Your task to perform on an android device: clear history in the chrome app Image 0: 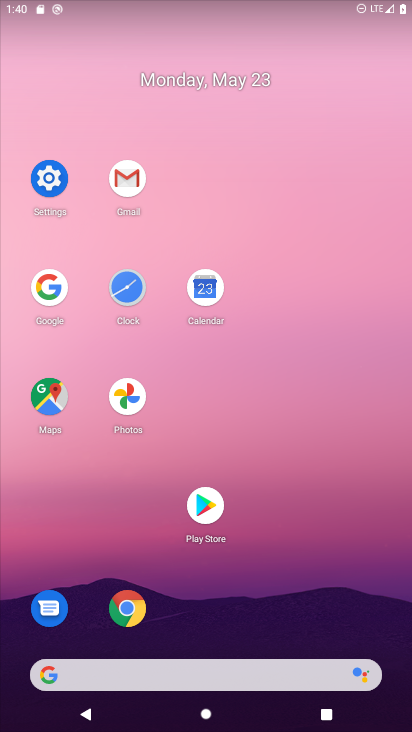
Step 0: click (129, 609)
Your task to perform on an android device: clear history in the chrome app Image 1: 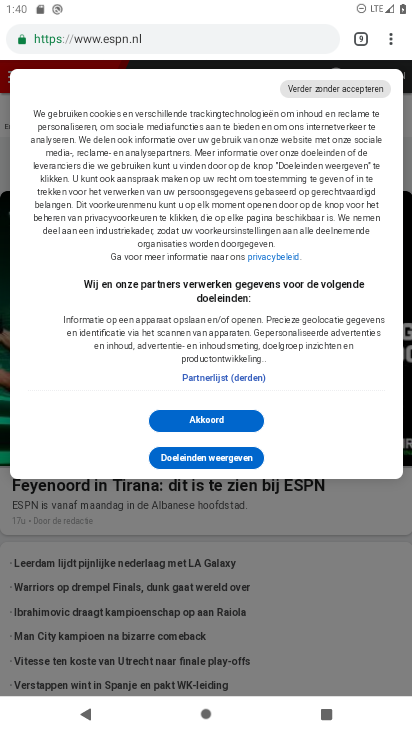
Step 1: click (394, 43)
Your task to perform on an android device: clear history in the chrome app Image 2: 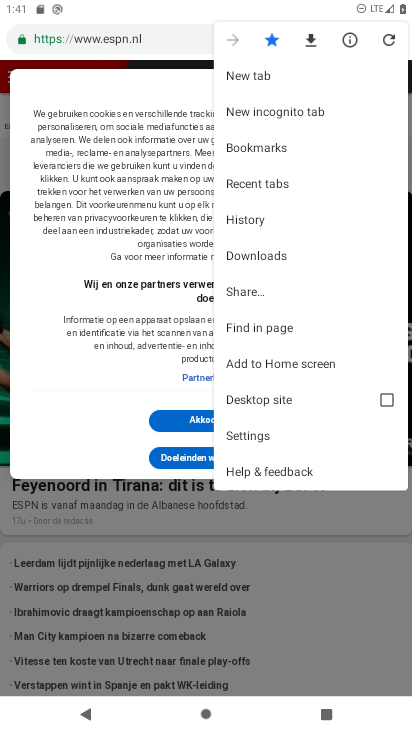
Step 2: click (259, 220)
Your task to perform on an android device: clear history in the chrome app Image 3: 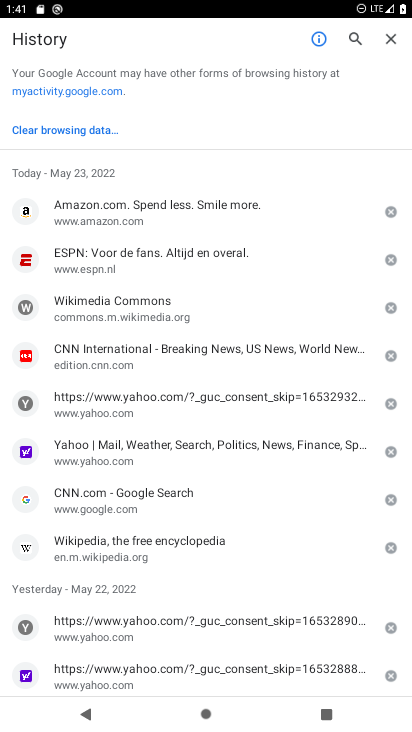
Step 3: click (46, 131)
Your task to perform on an android device: clear history in the chrome app Image 4: 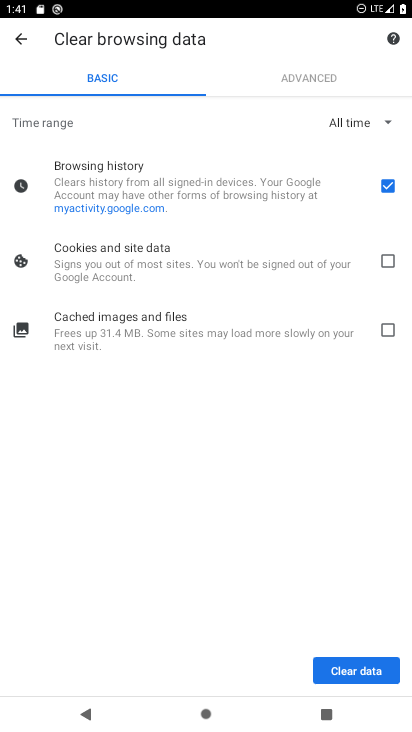
Step 4: click (362, 670)
Your task to perform on an android device: clear history in the chrome app Image 5: 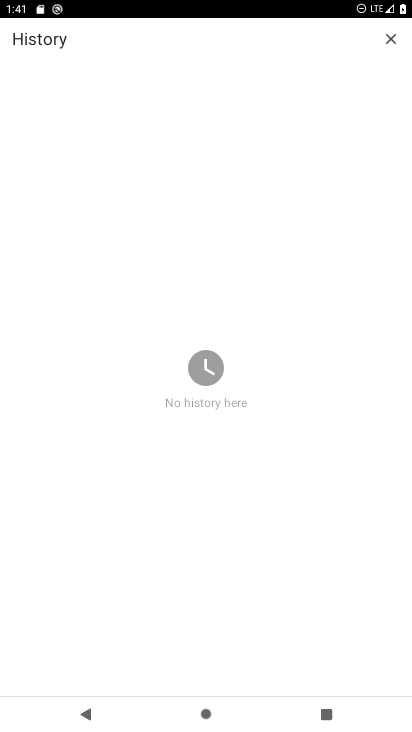
Step 5: task complete